Your task to perform on an android device: Open the phone app and click the voicemail tab. Image 0: 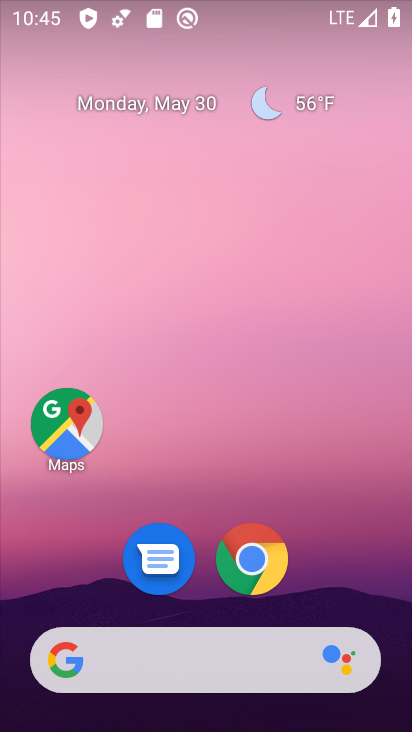
Step 0: drag from (390, 620) to (327, 267)
Your task to perform on an android device: Open the phone app and click the voicemail tab. Image 1: 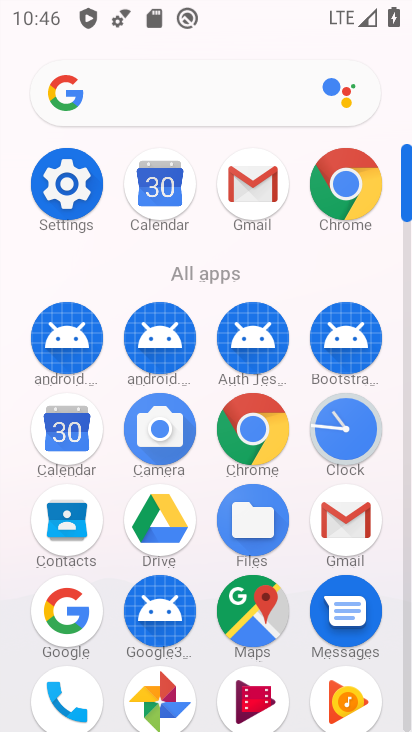
Step 1: click (403, 669)
Your task to perform on an android device: Open the phone app and click the voicemail tab. Image 2: 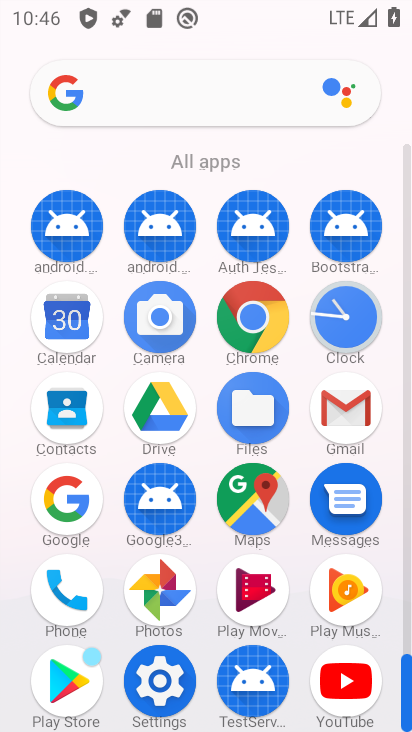
Step 2: click (73, 591)
Your task to perform on an android device: Open the phone app and click the voicemail tab. Image 3: 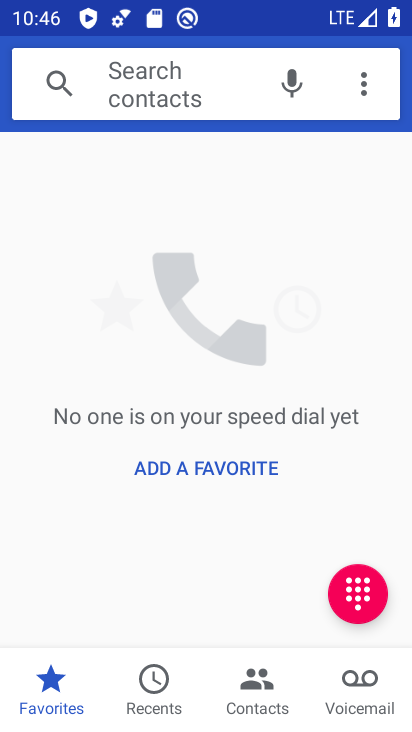
Step 3: click (349, 702)
Your task to perform on an android device: Open the phone app and click the voicemail tab. Image 4: 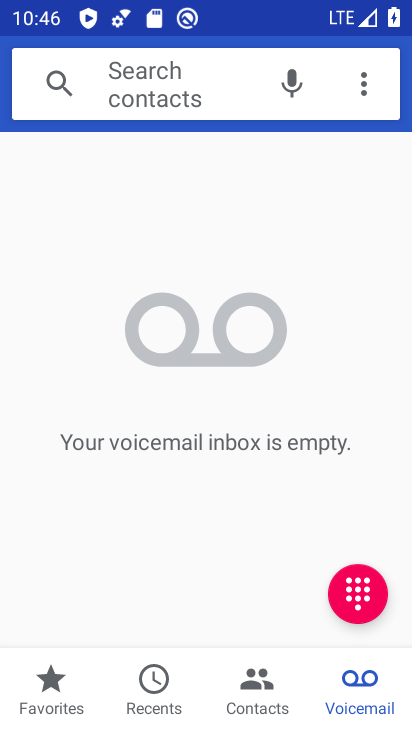
Step 4: task complete